Your task to perform on an android device: turn notification dots off Image 0: 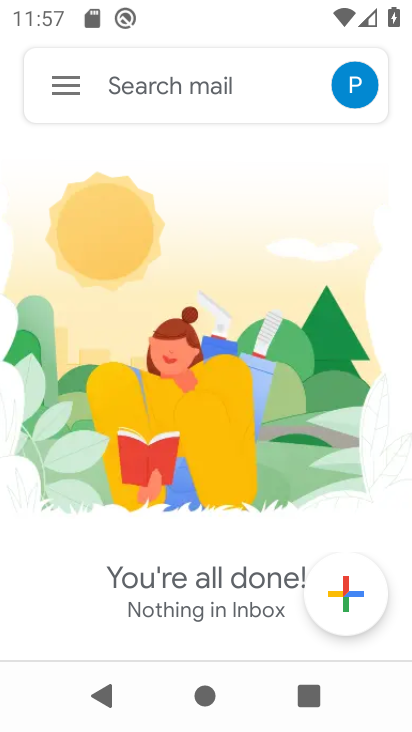
Step 0: press home button
Your task to perform on an android device: turn notification dots off Image 1: 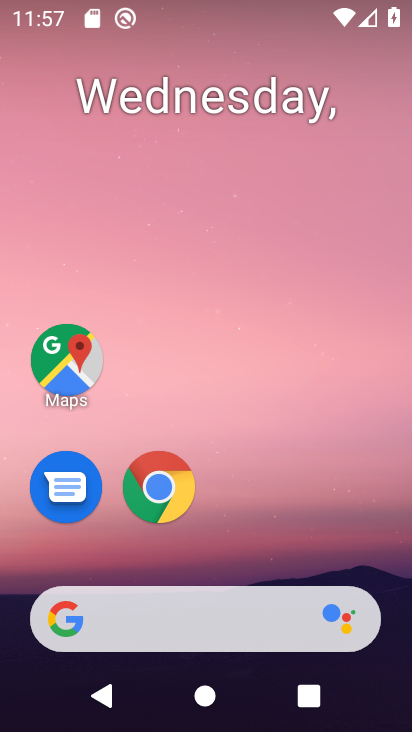
Step 1: drag from (339, 501) to (338, 227)
Your task to perform on an android device: turn notification dots off Image 2: 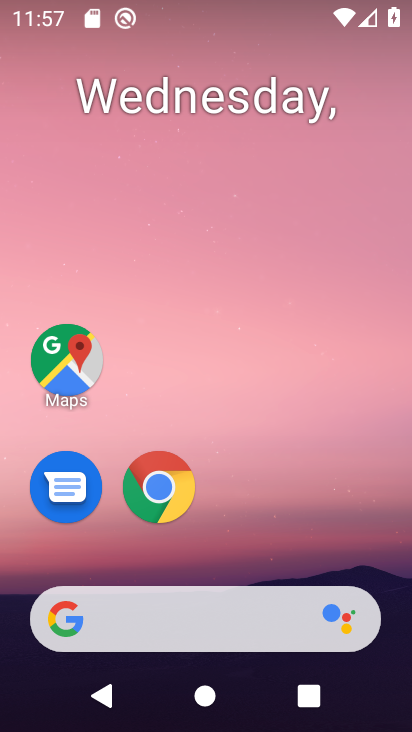
Step 2: drag from (354, 490) to (362, 132)
Your task to perform on an android device: turn notification dots off Image 3: 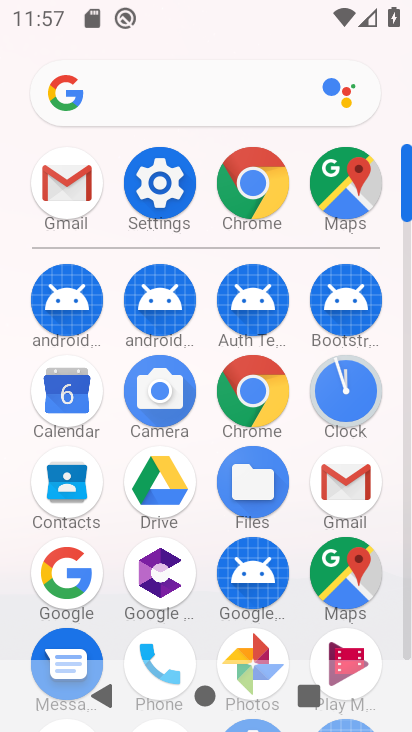
Step 3: click (163, 168)
Your task to perform on an android device: turn notification dots off Image 4: 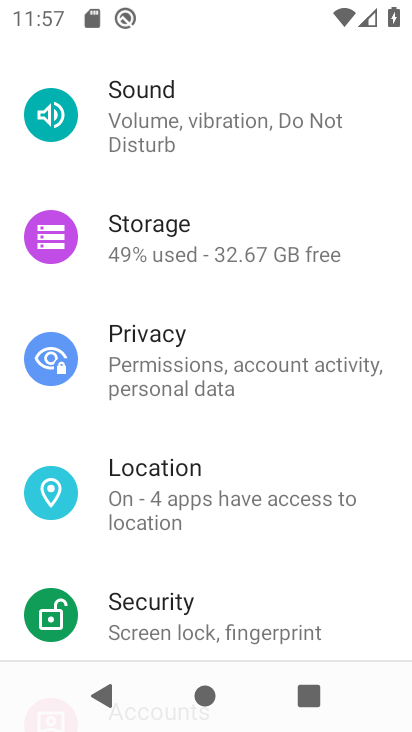
Step 4: drag from (375, 234) to (387, 327)
Your task to perform on an android device: turn notification dots off Image 5: 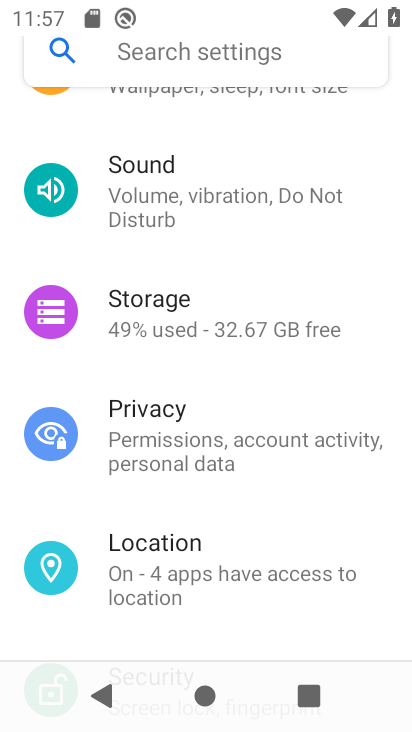
Step 5: drag from (368, 232) to (372, 394)
Your task to perform on an android device: turn notification dots off Image 6: 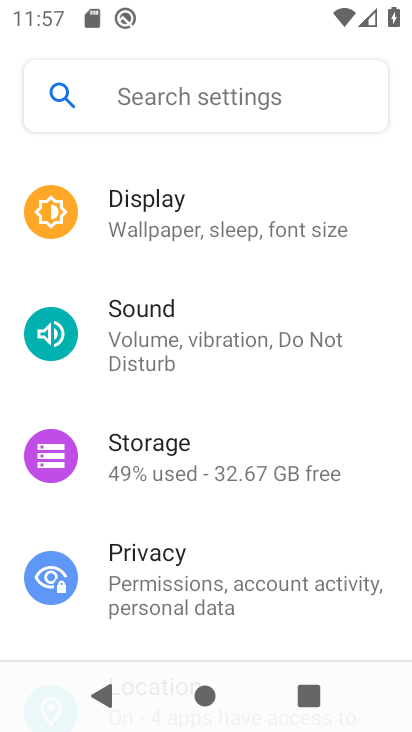
Step 6: drag from (350, 287) to (364, 459)
Your task to perform on an android device: turn notification dots off Image 7: 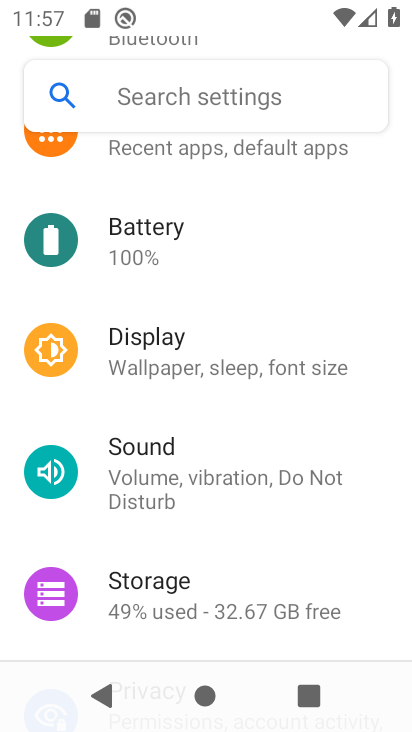
Step 7: drag from (354, 331) to (371, 491)
Your task to perform on an android device: turn notification dots off Image 8: 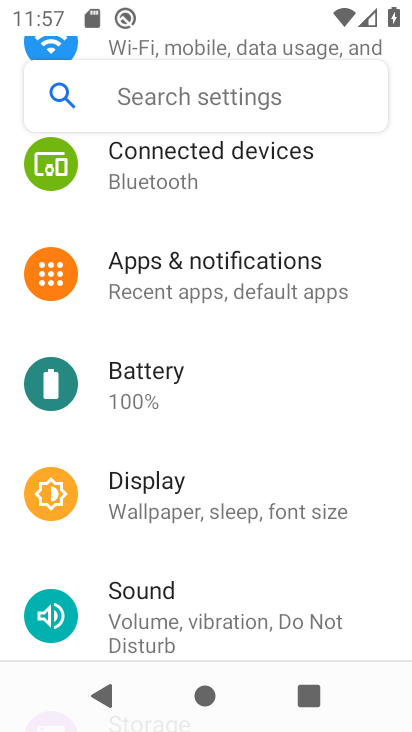
Step 8: click (290, 292)
Your task to perform on an android device: turn notification dots off Image 9: 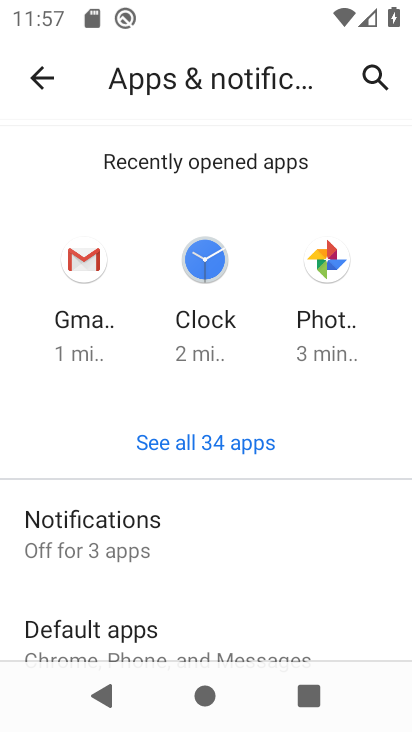
Step 9: click (140, 521)
Your task to perform on an android device: turn notification dots off Image 10: 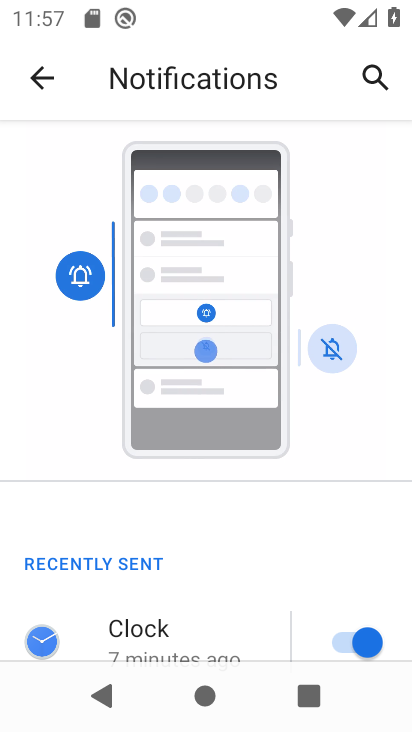
Step 10: drag from (266, 542) to (275, 289)
Your task to perform on an android device: turn notification dots off Image 11: 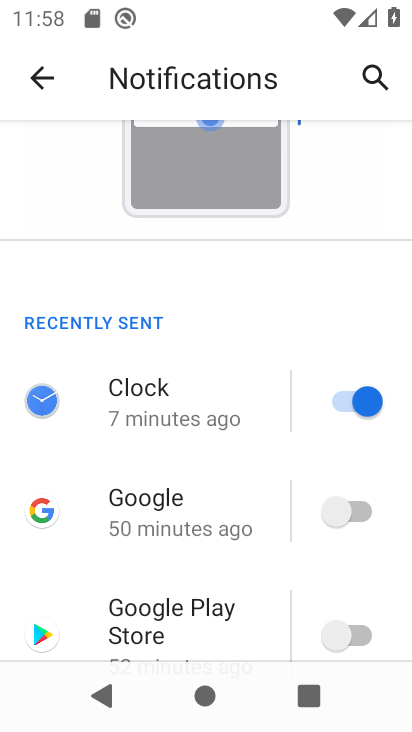
Step 11: drag from (256, 586) to (249, 290)
Your task to perform on an android device: turn notification dots off Image 12: 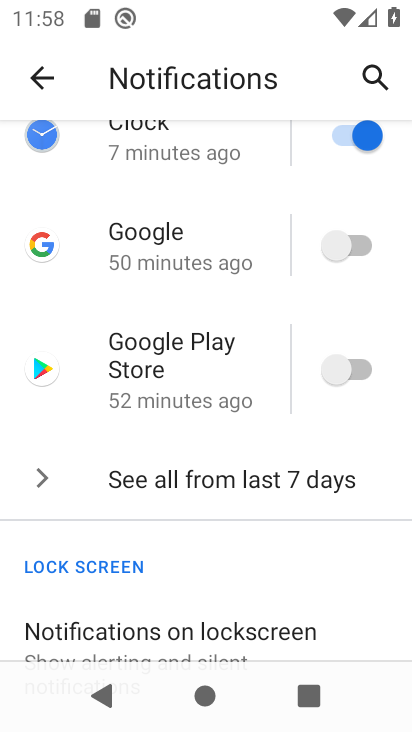
Step 12: drag from (264, 571) to (256, 277)
Your task to perform on an android device: turn notification dots off Image 13: 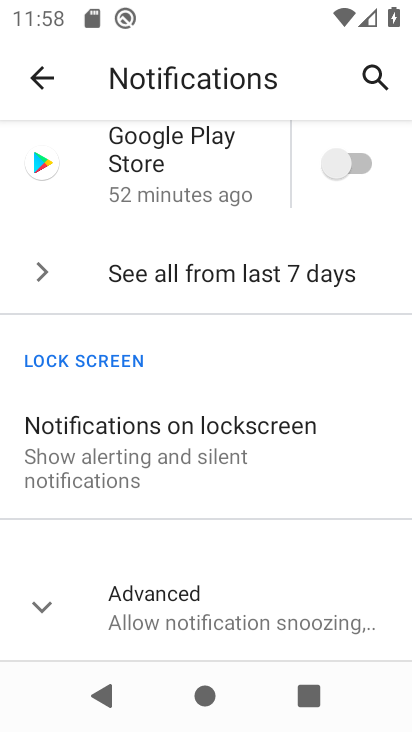
Step 13: click (256, 614)
Your task to perform on an android device: turn notification dots off Image 14: 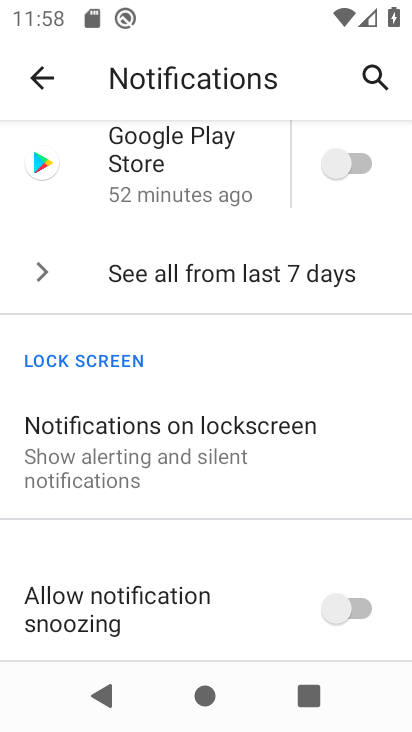
Step 14: task complete